Your task to perform on an android device: Show me the alarms in the clock app Image 0: 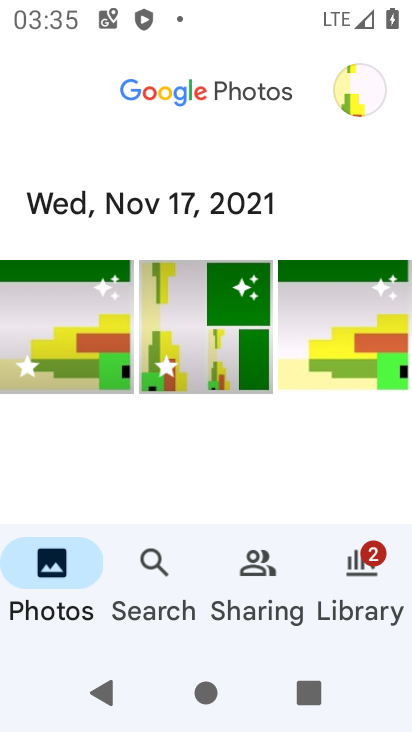
Step 0: press home button
Your task to perform on an android device: Show me the alarms in the clock app Image 1: 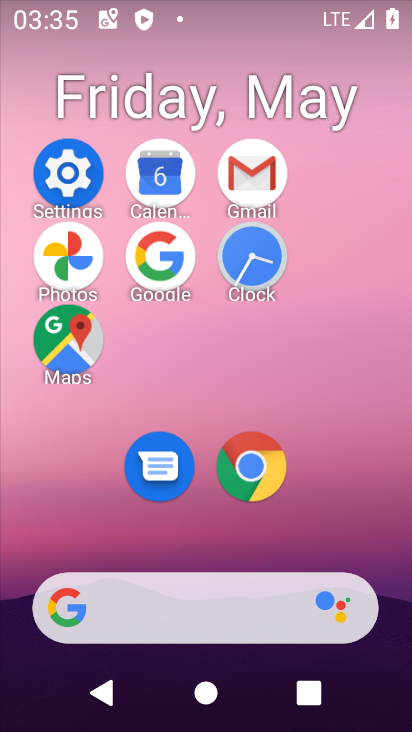
Step 1: click (279, 264)
Your task to perform on an android device: Show me the alarms in the clock app Image 2: 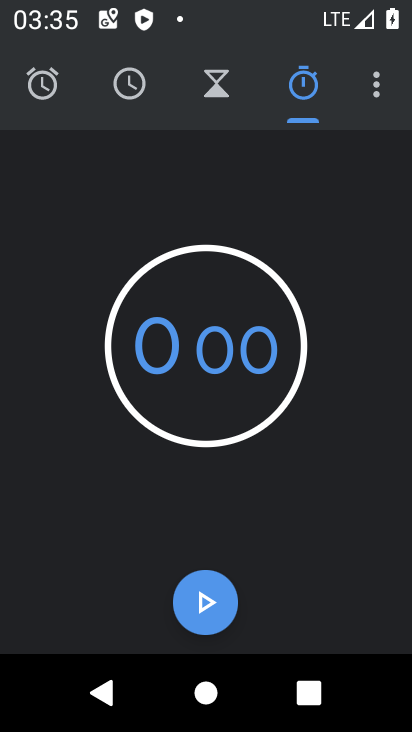
Step 2: click (52, 105)
Your task to perform on an android device: Show me the alarms in the clock app Image 3: 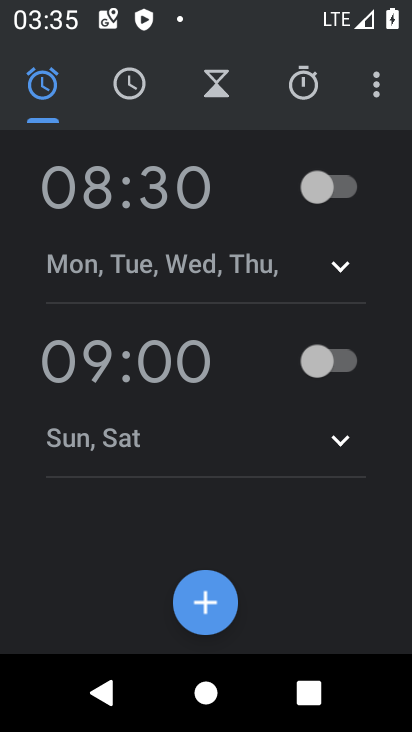
Step 3: task complete